Your task to perform on an android device: turn off wifi Image 0: 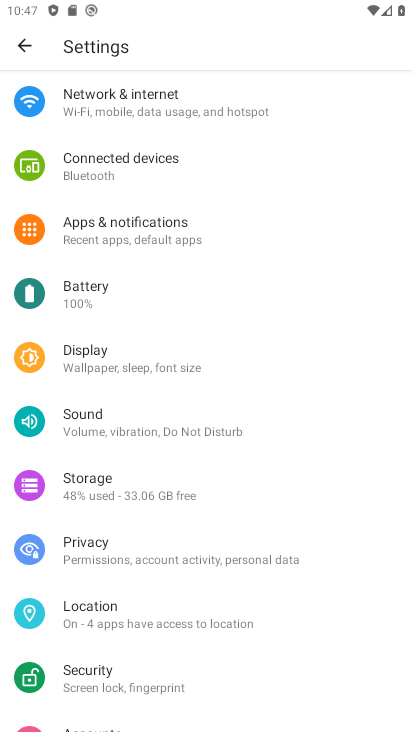
Step 0: drag from (155, 153) to (188, 639)
Your task to perform on an android device: turn off wifi Image 1: 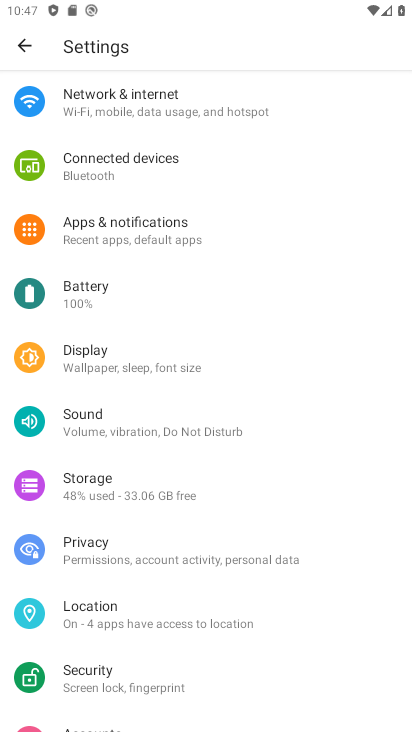
Step 1: click (131, 108)
Your task to perform on an android device: turn off wifi Image 2: 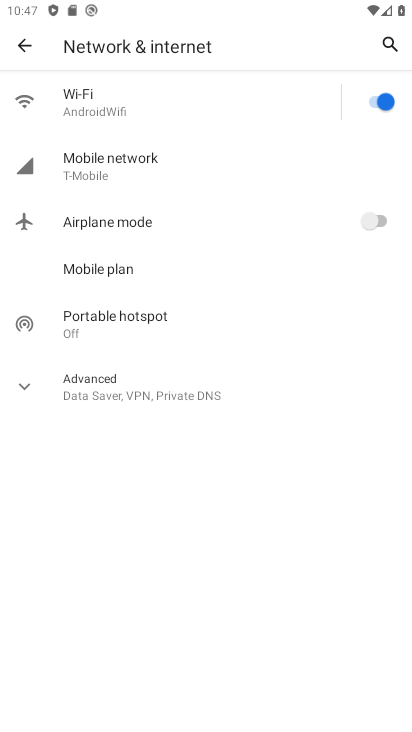
Step 2: click (141, 99)
Your task to perform on an android device: turn off wifi Image 3: 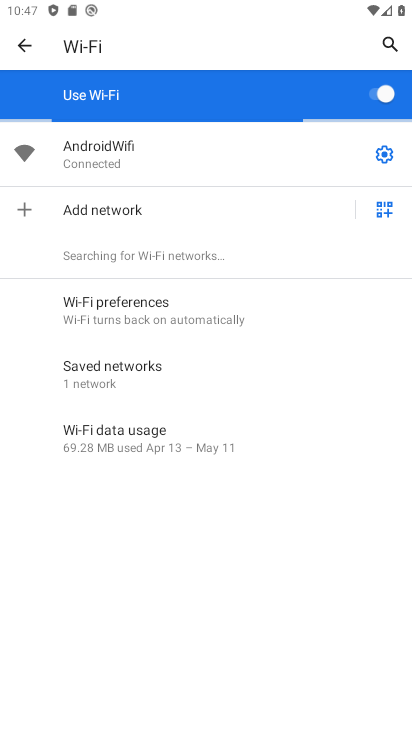
Step 3: task complete